Your task to perform on an android device: open a new tab in the chrome app Image 0: 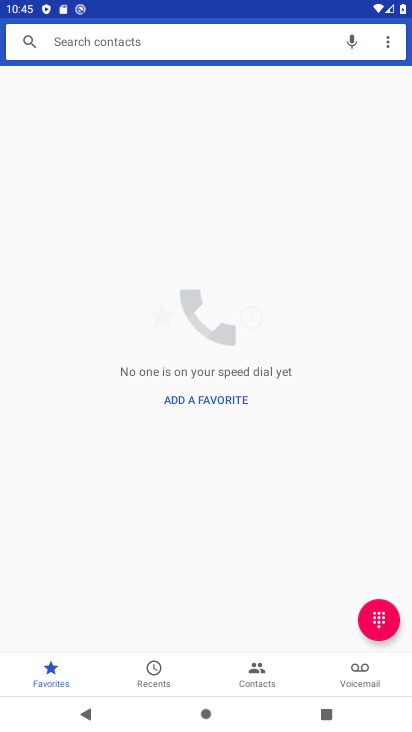
Step 0: press home button
Your task to perform on an android device: open a new tab in the chrome app Image 1: 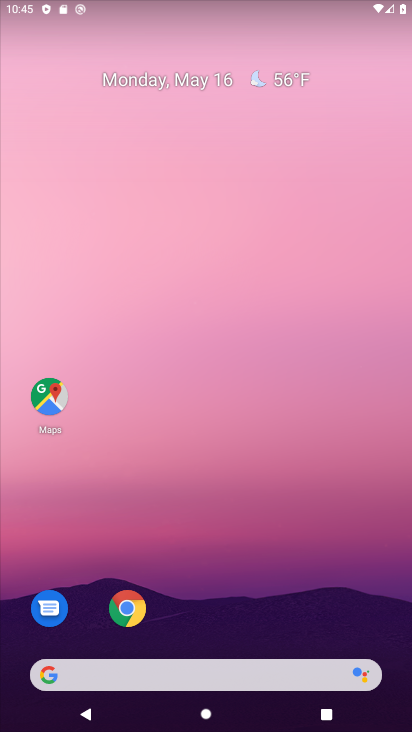
Step 1: drag from (363, 609) to (367, 136)
Your task to perform on an android device: open a new tab in the chrome app Image 2: 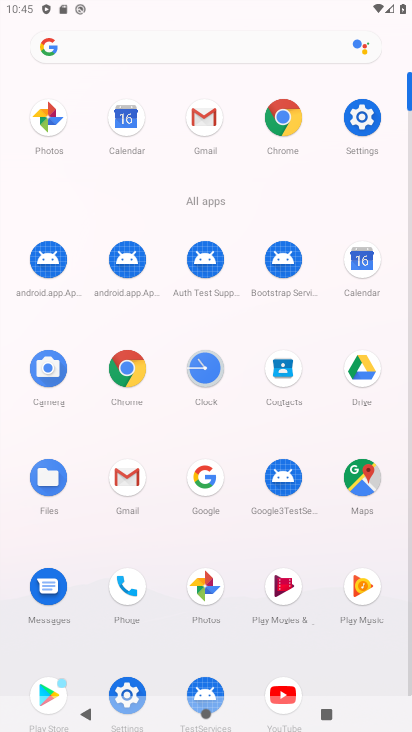
Step 2: click (125, 373)
Your task to perform on an android device: open a new tab in the chrome app Image 3: 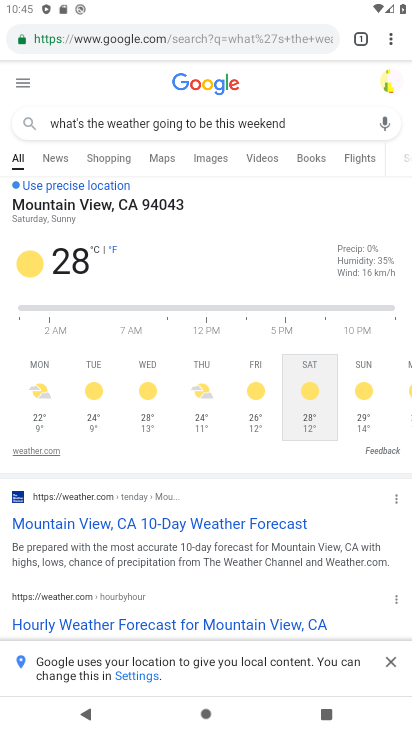
Step 3: click (362, 39)
Your task to perform on an android device: open a new tab in the chrome app Image 4: 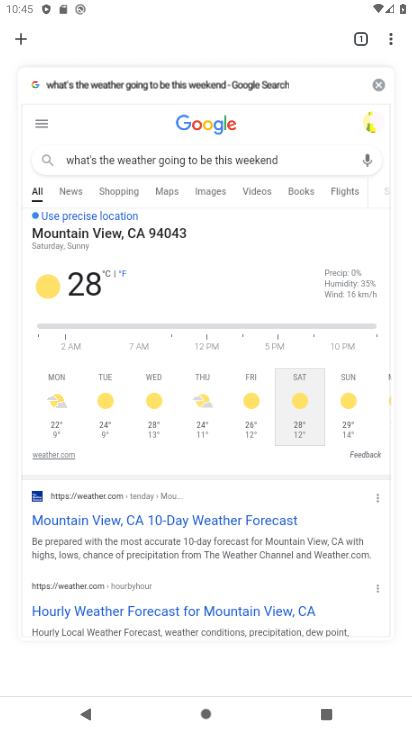
Step 4: click (23, 39)
Your task to perform on an android device: open a new tab in the chrome app Image 5: 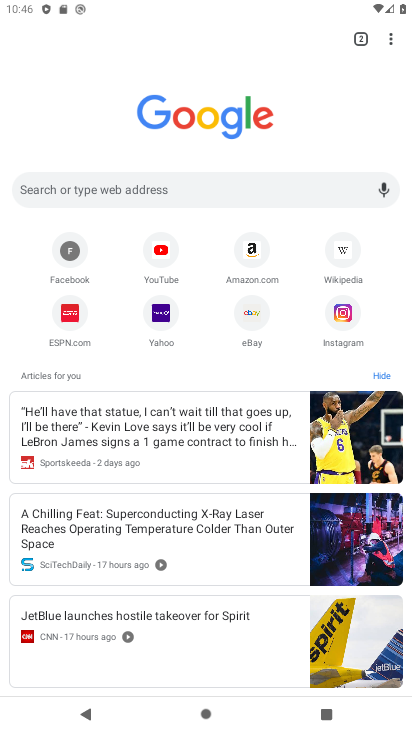
Step 5: task complete